Your task to perform on an android device: Go to notification settings Image 0: 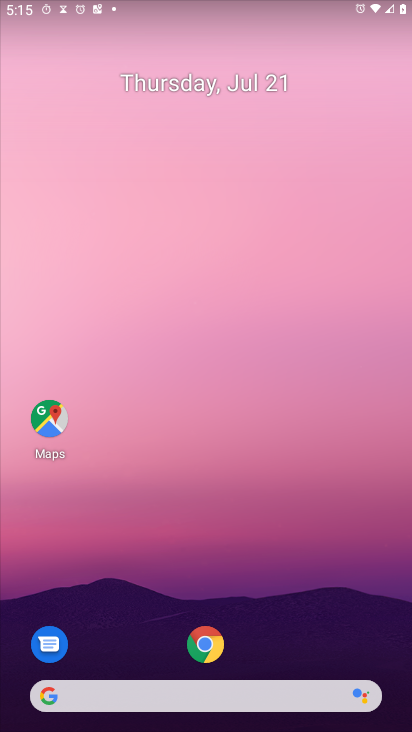
Step 0: press home button
Your task to perform on an android device: Go to notification settings Image 1: 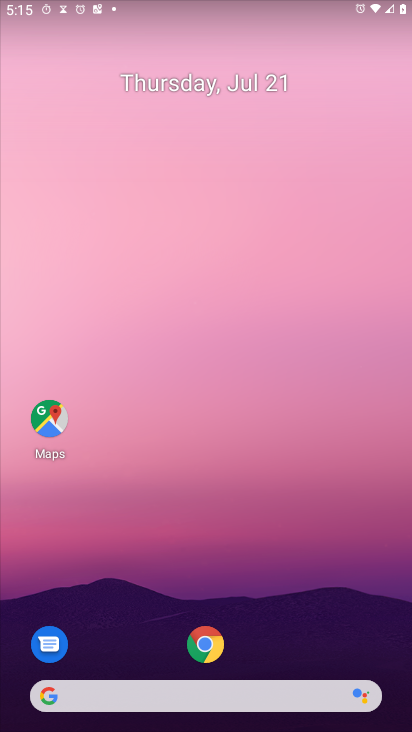
Step 1: drag from (350, 623) to (411, 16)
Your task to perform on an android device: Go to notification settings Image 2: 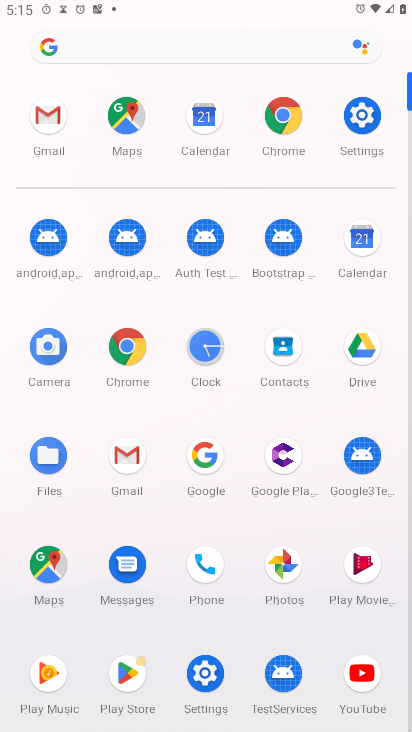
Step 2: click (353, 108)
Your task to perform on an android device: Go to notification settings Image 3: 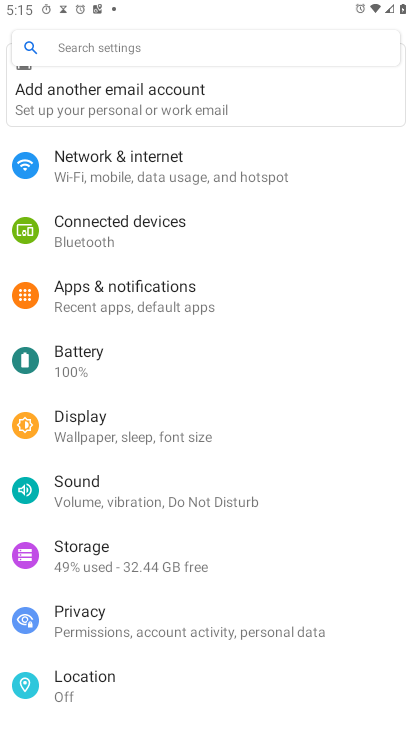
Step 3: click (132, 295)
Your task to perform on an android device: Go to notification settings Image 4: 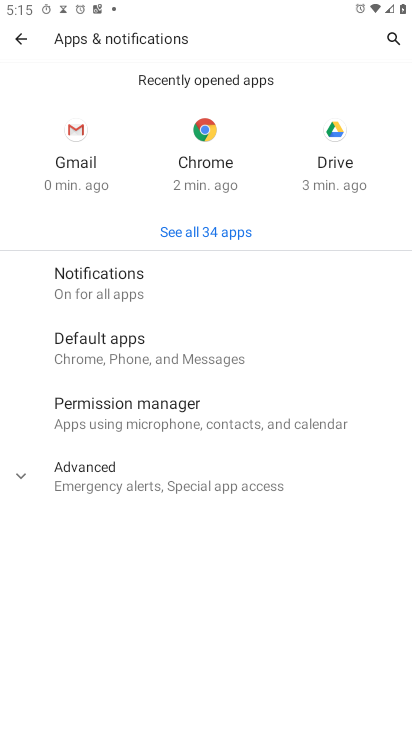
Step 4: click (103, 287)
Your task to perform on an android device: Go to notification settings Image 5: 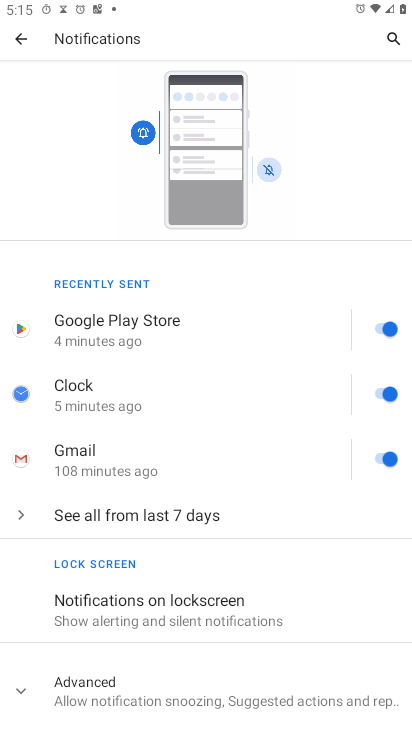
Step 5: task complete